Your task to perform on an android device: Search for amazon basics triple a on newegg.com, select the first entry, add it to the cart, then select checkout. Image 0: 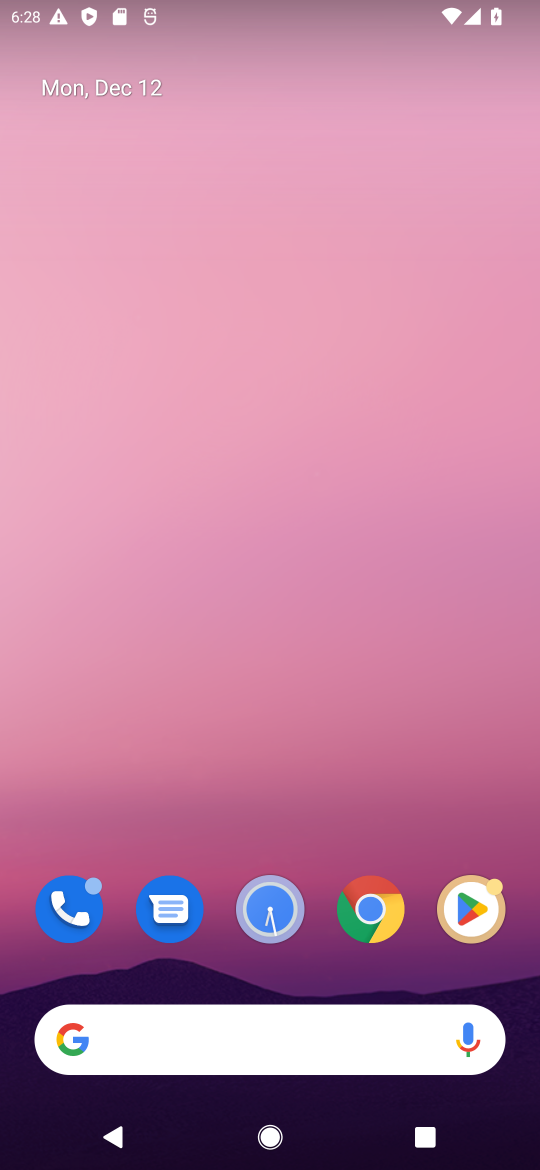
Step 0: click (371, 895)
Your task to perform on an android device: Search for amazon basics triple a on newegg.com, select the first entry, add it to the cart, then select checkout. Image 1: 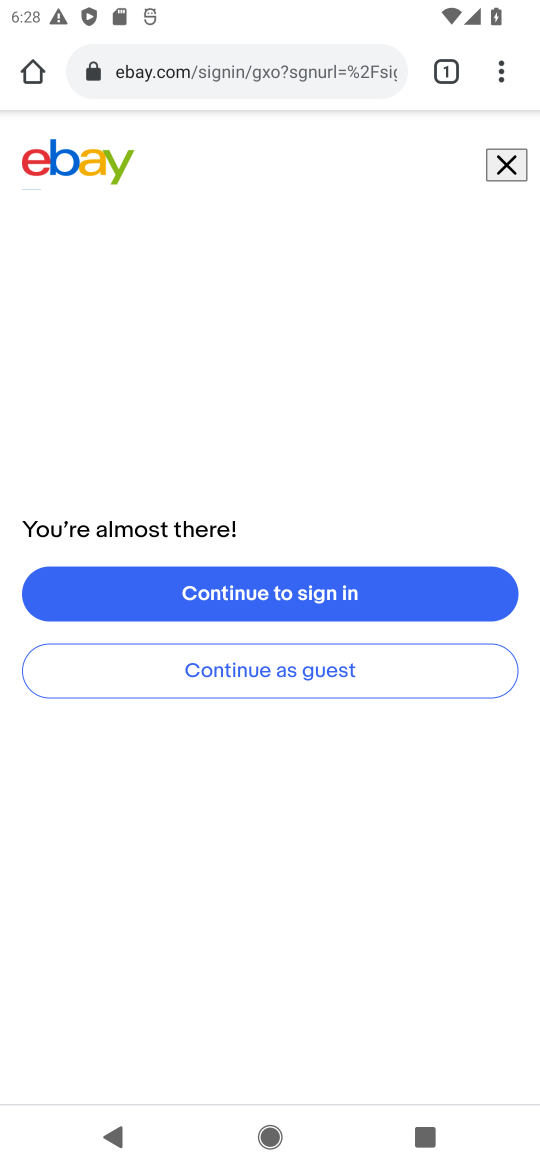
Step 1: click (147, 73)
Your task to perform on an android device: Search for amazon basics triple a on newegg.com, select the first entry, add it to the cart, then select checkout. Image 2: 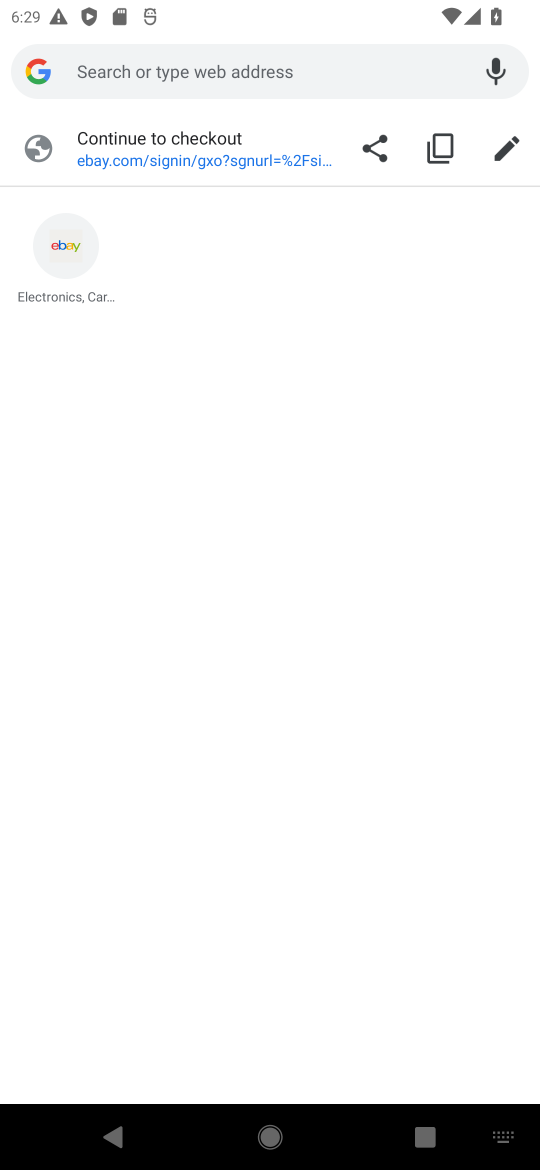
Step 2: type "newegg"
Your task to perform on an android device: Search for amazon basics triple a on newegg.com, select the first entry, add it to the cart, then select checkout. Image 3: 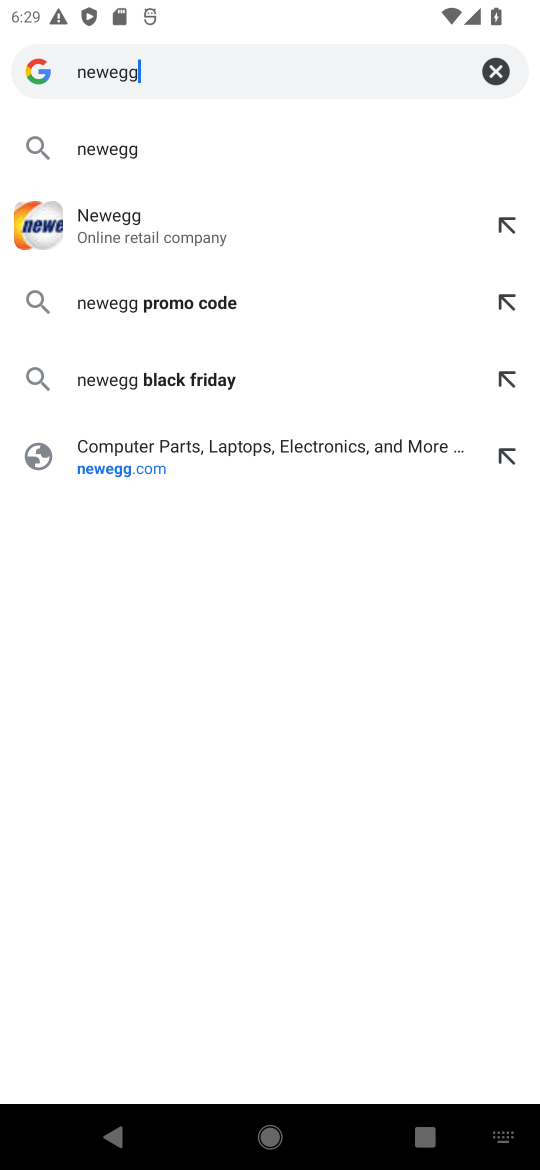
Step 3: click (87, 212)
Your task to perform on an android device: Search for amazon basics triple a on newegg.com, select the first entry, add it to the cart, then select checkout. Image 4: 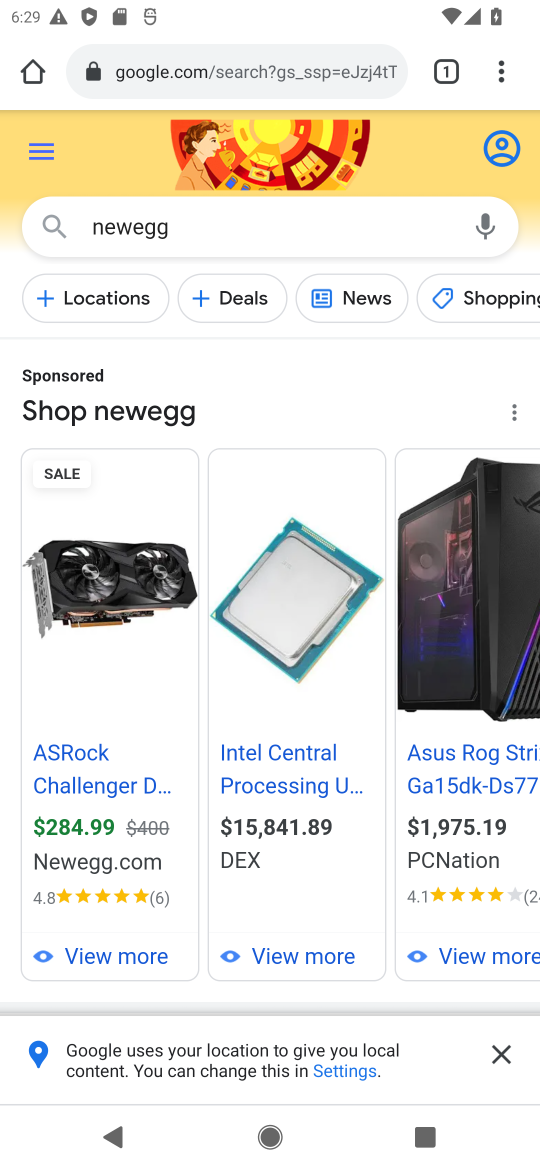
Step 4: drag from (226, 423) to (204, 102)
Your task to perform on an android device: Search for amazon basics triple a on newegg.com, select the first entry, add it to the cart, then select checkout. Image 5: 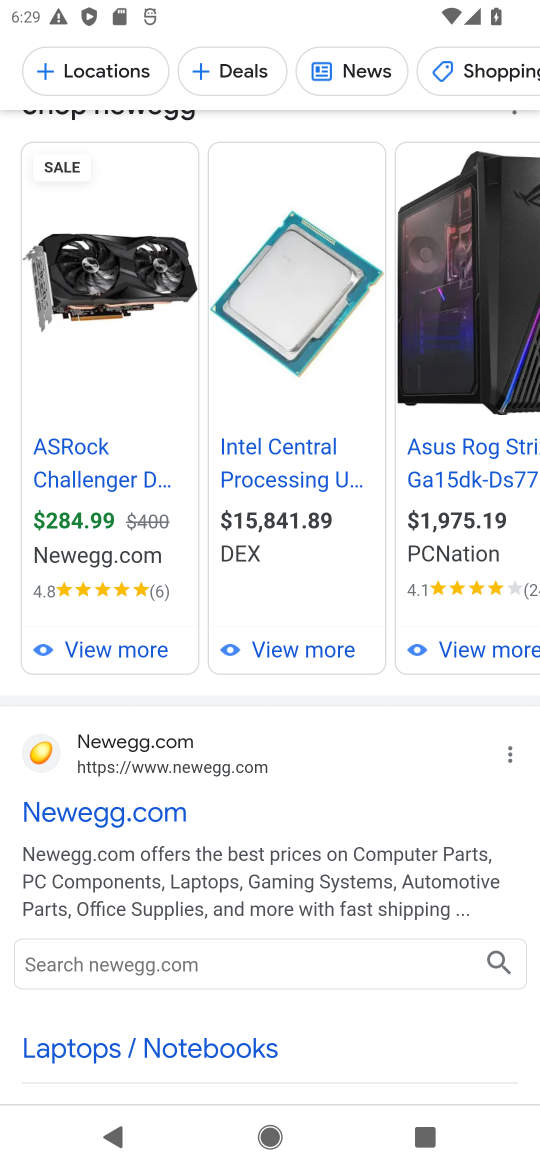
Step 5: click (69, 792)
Your task to perform on an android device: Search for amazon basics triple a on newegg.com, select the first entry, add it to the cart, then select checkout. Image 6: 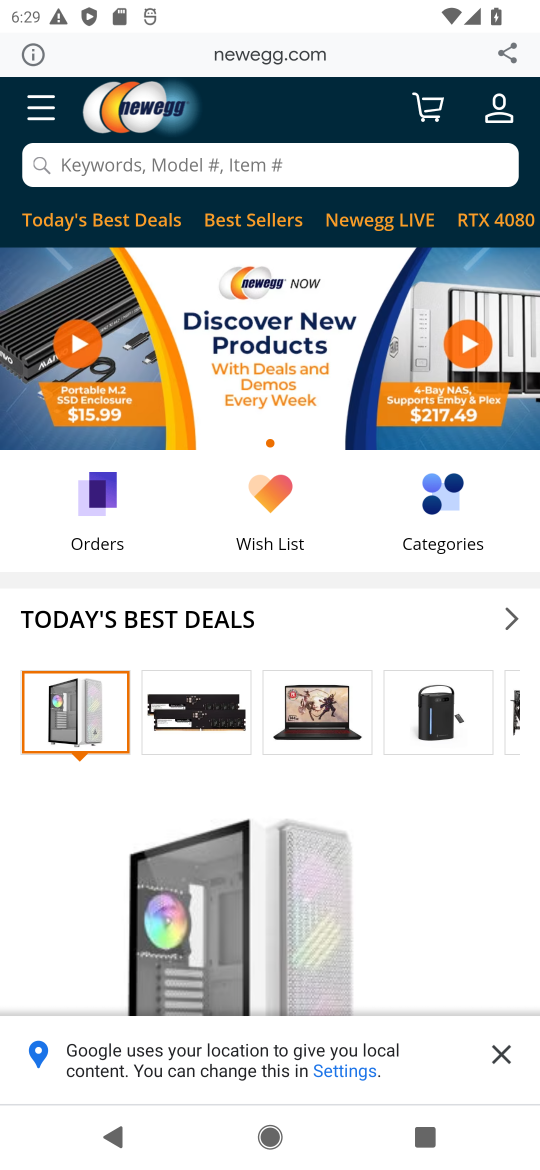
Step 6: click (191, 171)
Your task to perform on an android device: Search for amazon basics triple a on newegg.com, select the first entry, add it to the cart, then select checkout. Image 7: 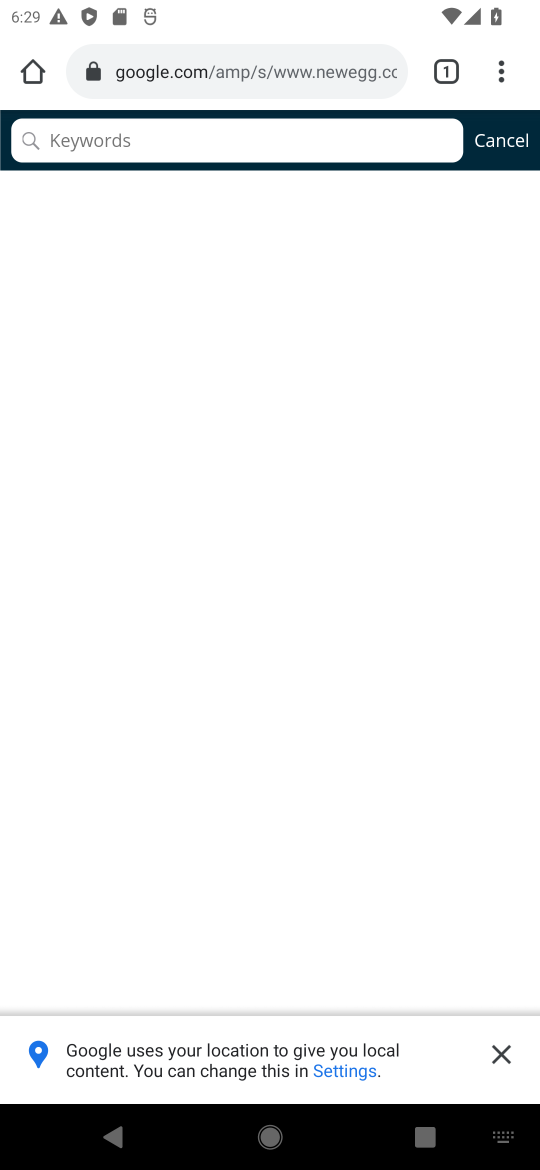
Step 7: type "amazon basics triple a"
Your task to perform on an android device: Search for amazon basics triple a on newegg.com, select the first entry, add it to the cart, then select checkout. Image 8: 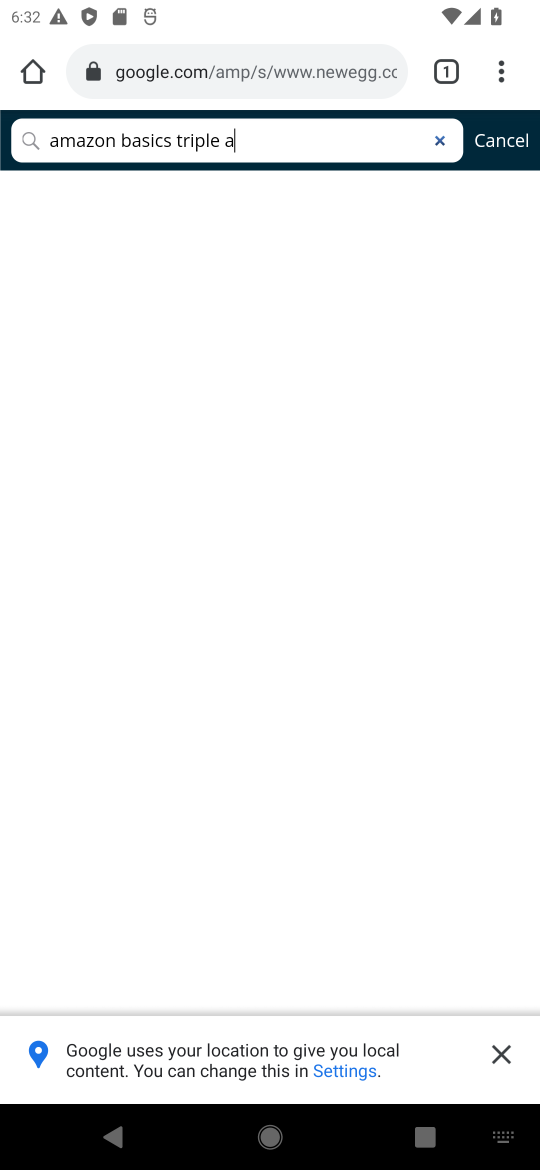
Step 8: task complete